Your task to perform on an android device: change the clock display to analog Image 0: 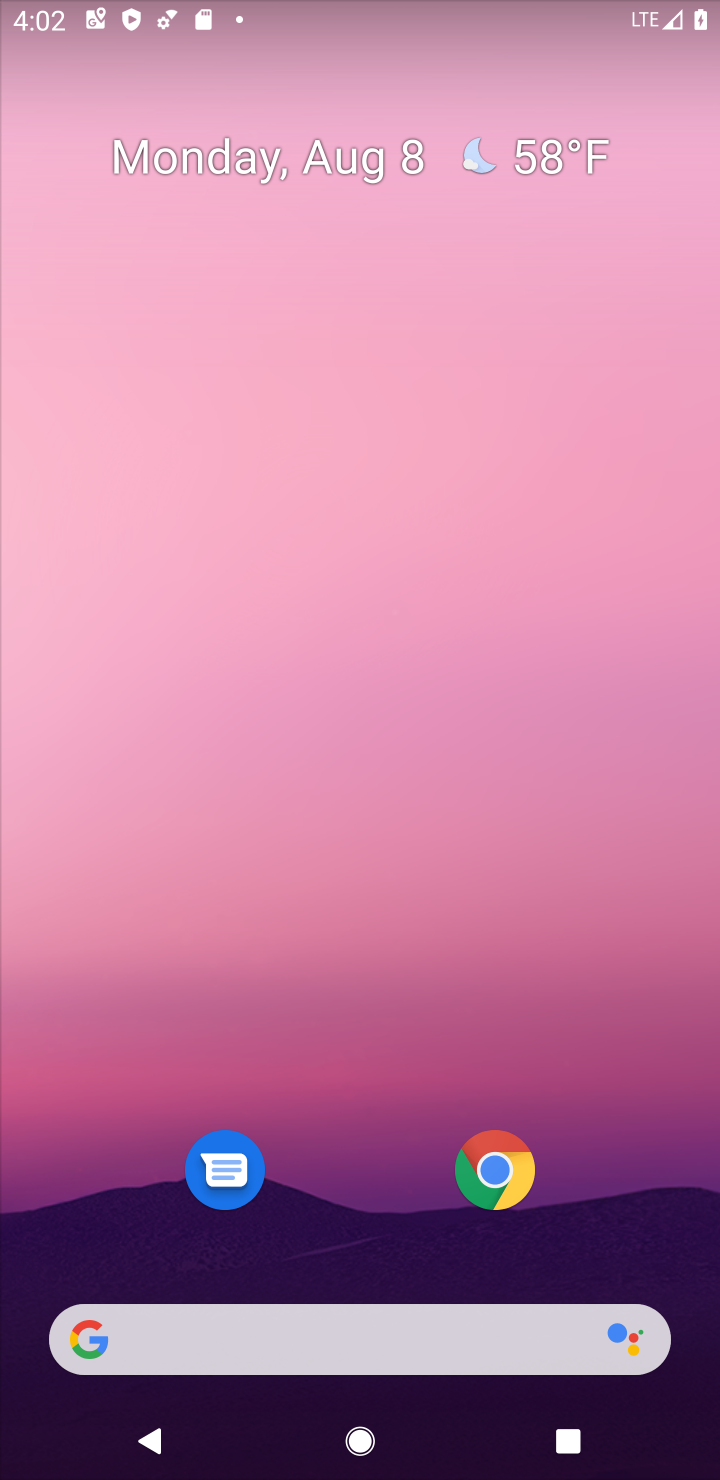
Step 0: drag from (390, 862) to (361, 441)
Your task to perform on an android device: change the clock display to analog Image 1: 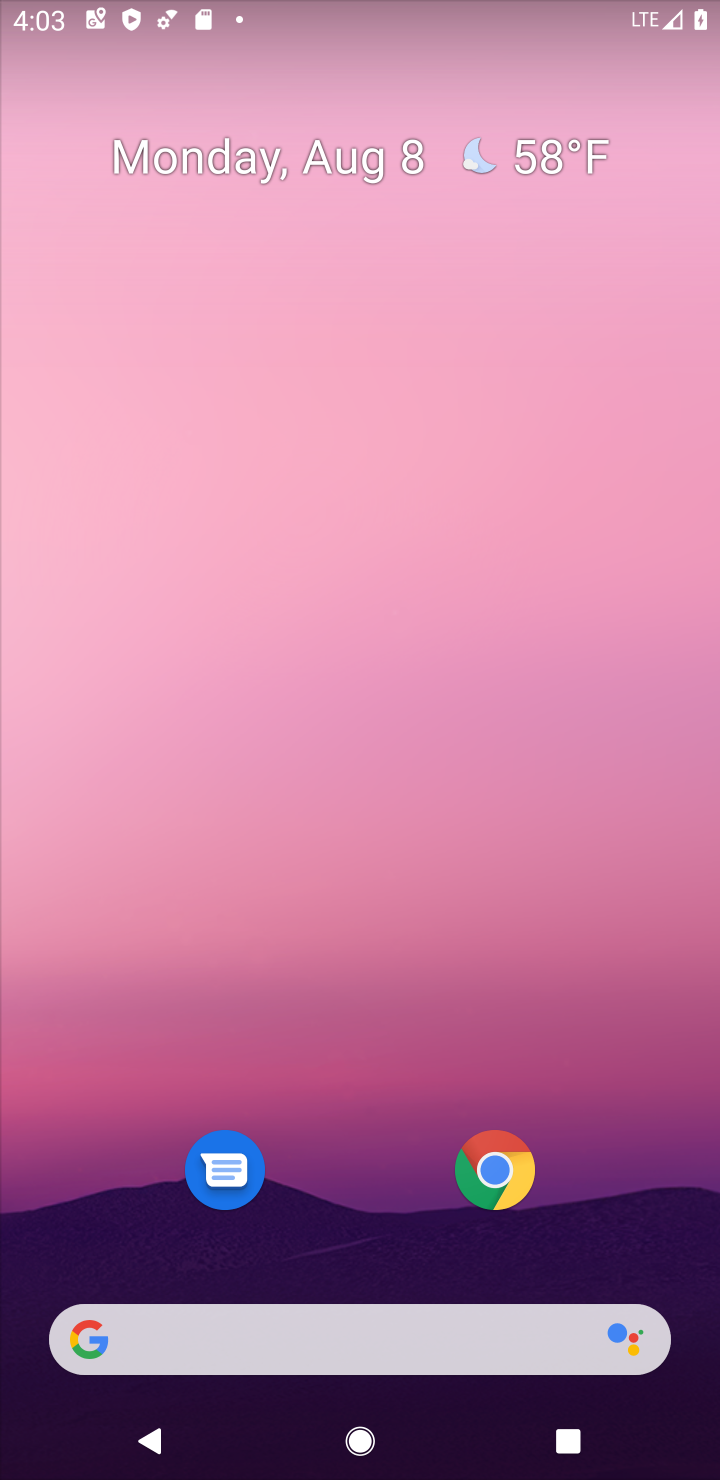
Step 1: drag from (351, 780) to (351, 279)
Your task to perform on an android device: change the clock display to analog Image 2: 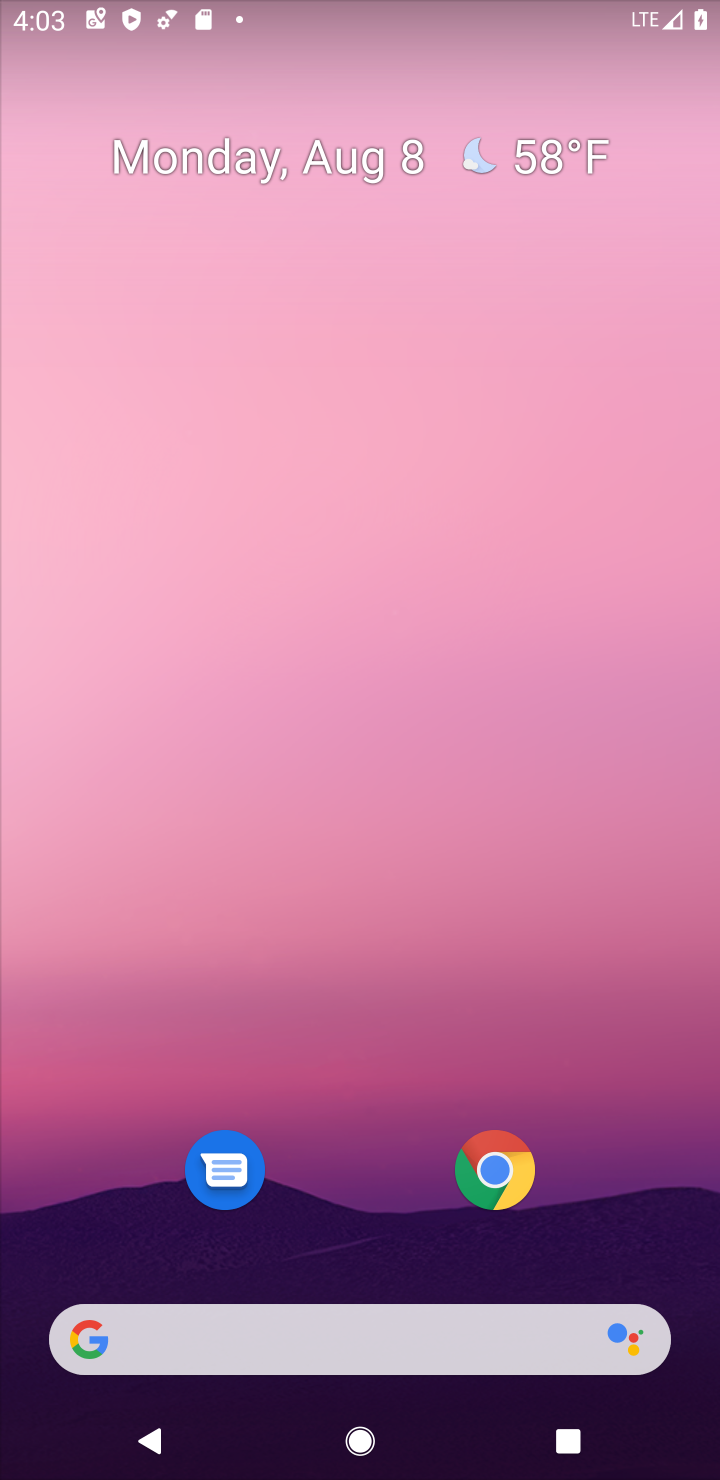
Step 2: drag from (368, 865) to (374, 283)
Your task to perform on an android device: change the clock display to analog Image 3: 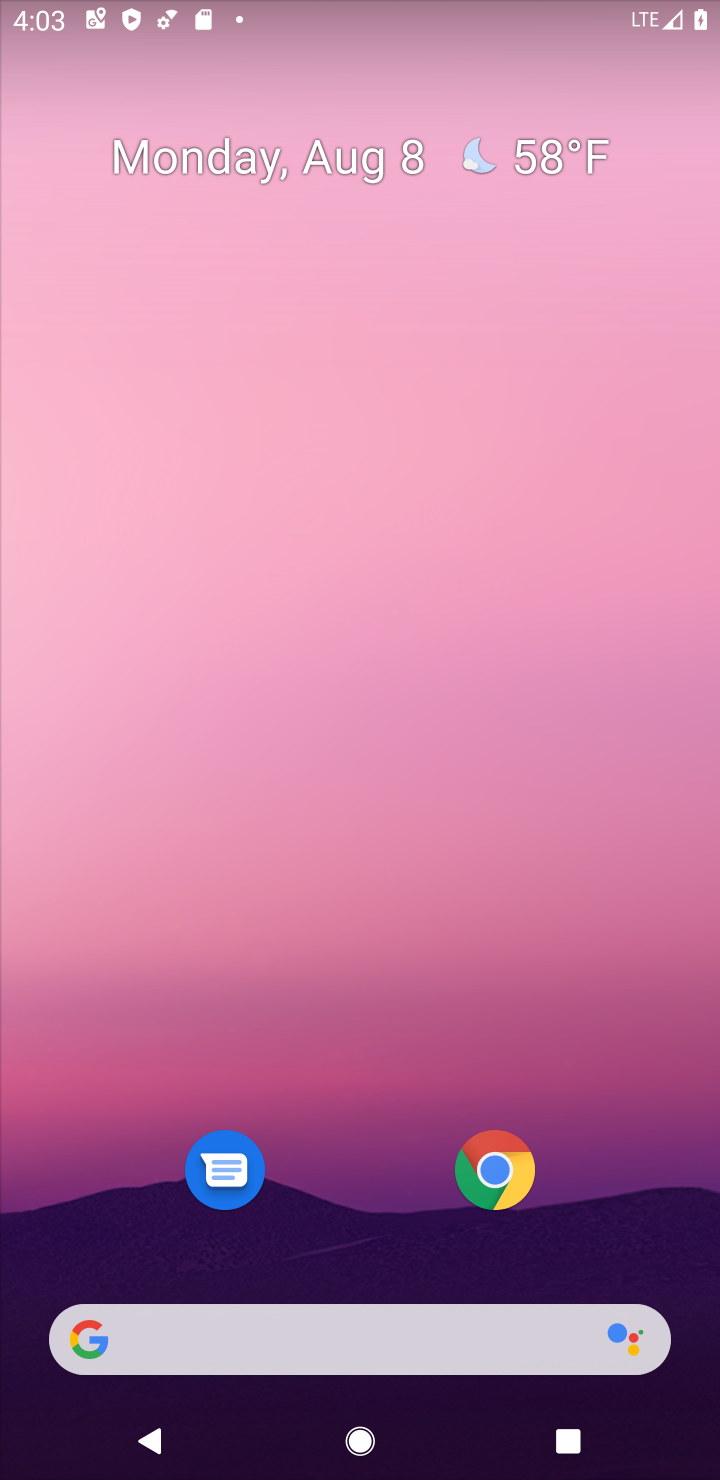
Step 3: drag from (340, 1071) to (340, 303)
Your task to perform on an android device: change the clock display to analog Image 4: 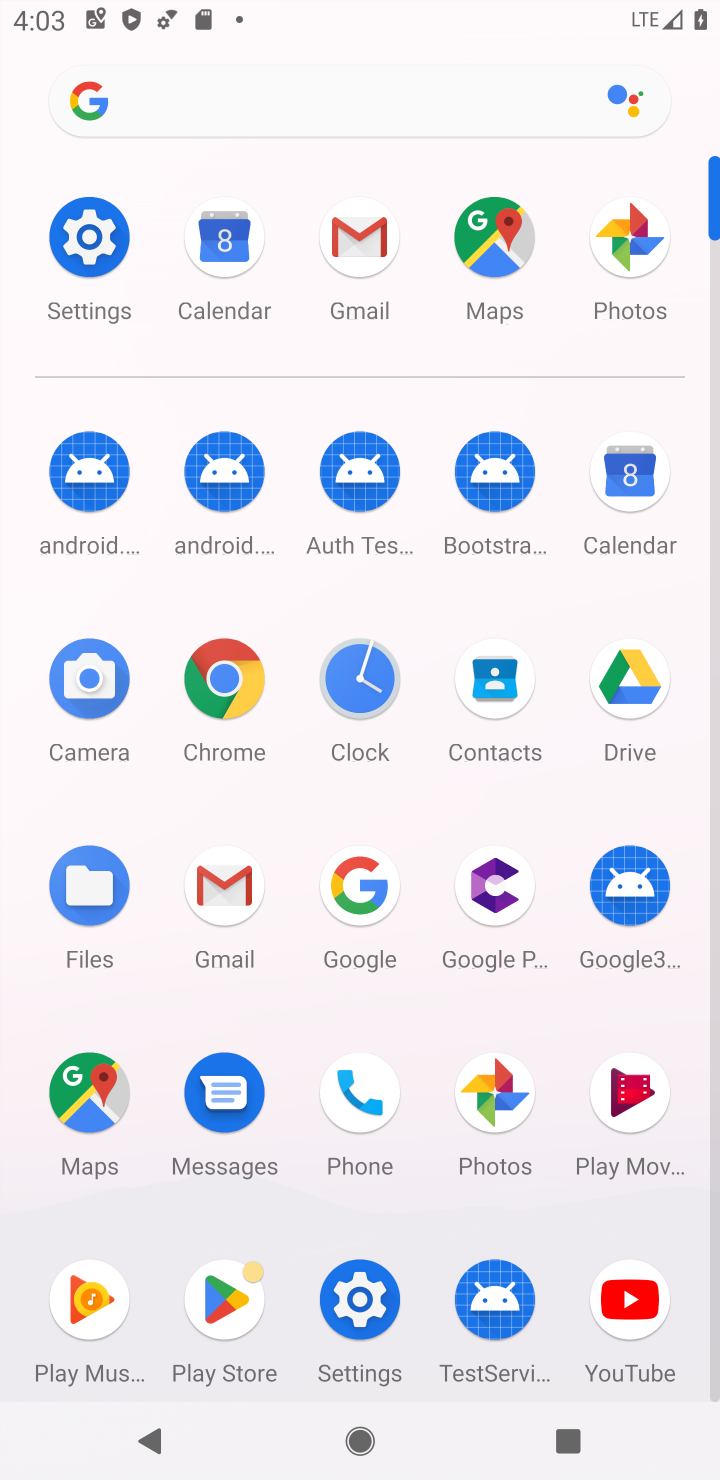
Step 4: click (351, 657)
Your task to perform on an android device: change the clock display to analog Image 5: 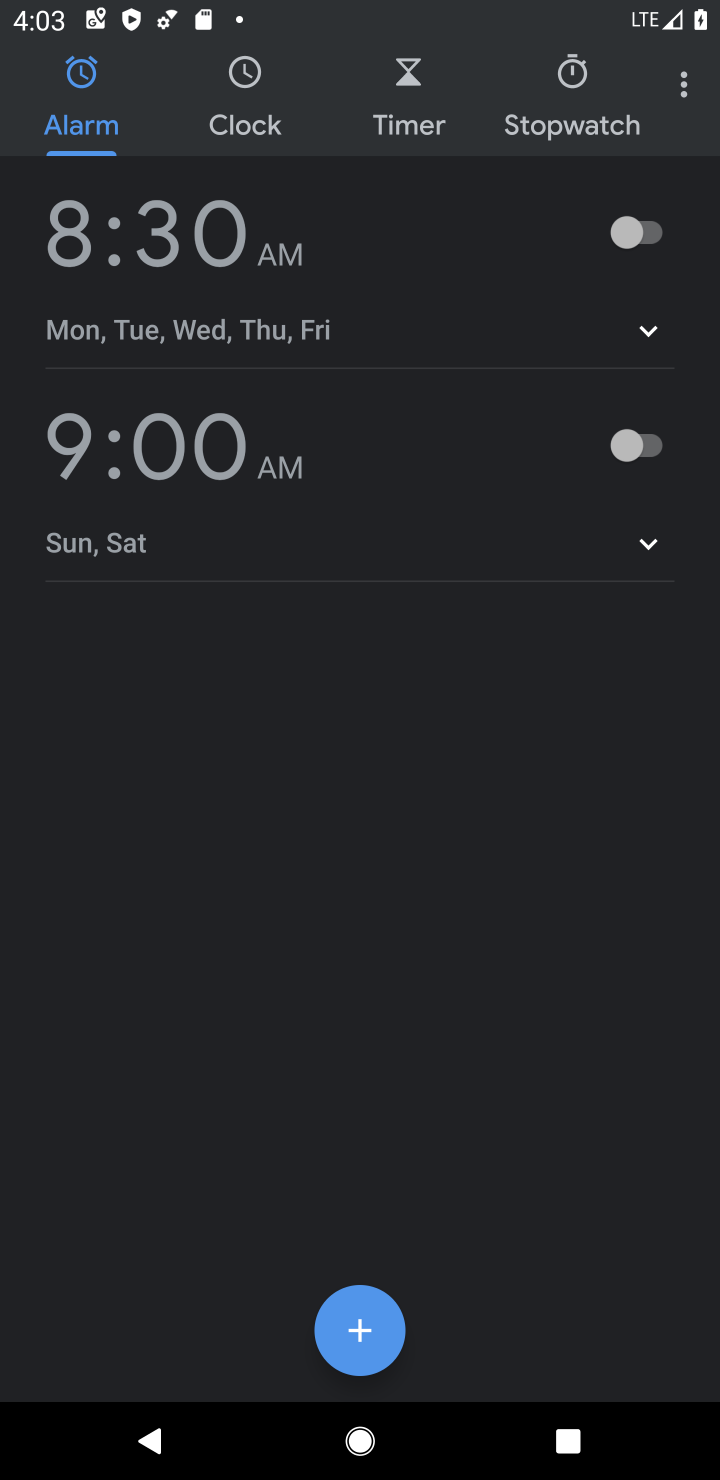
Step 5: click (679, 87)
Your task to perform on an android device: change the clock display to analog Image 6: 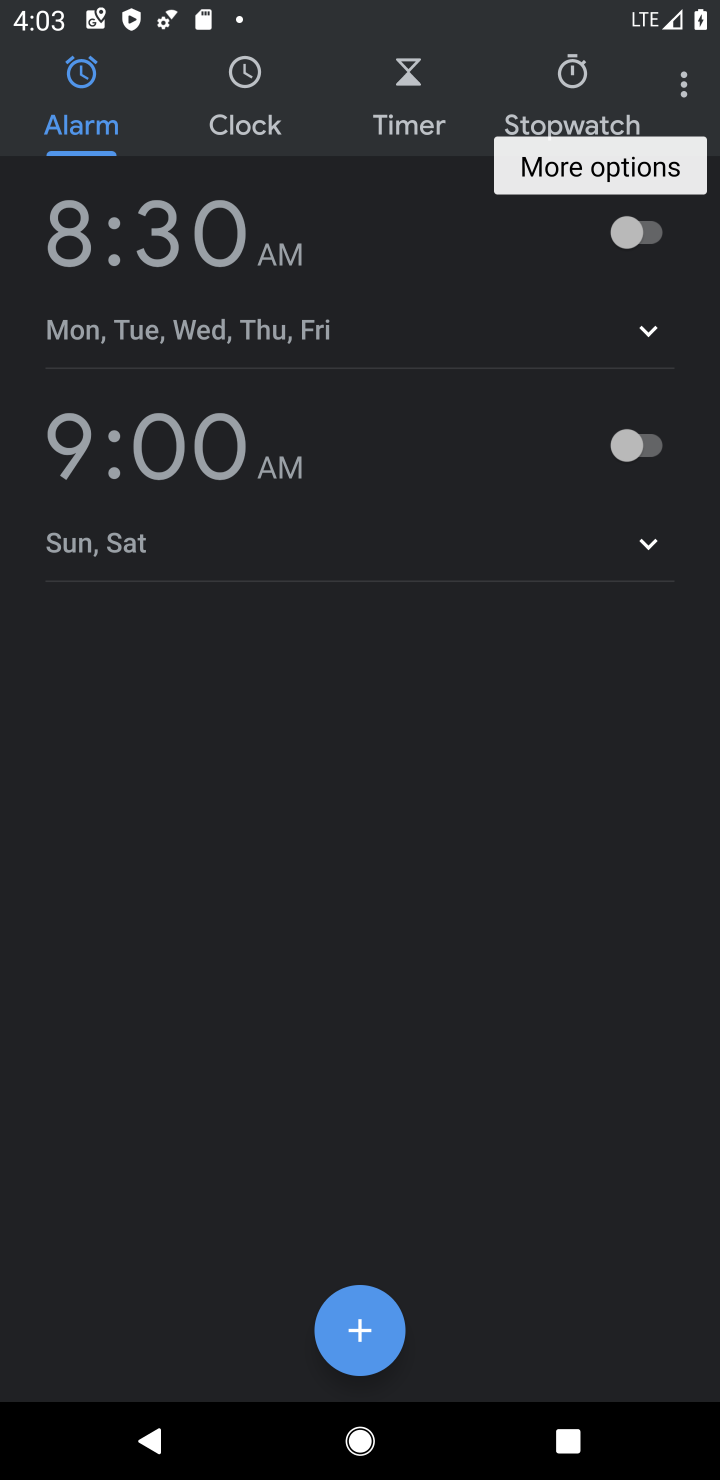
Step 6: click (685, 90)
Your task to perform on an android device: change the clock display to analog Image 7: 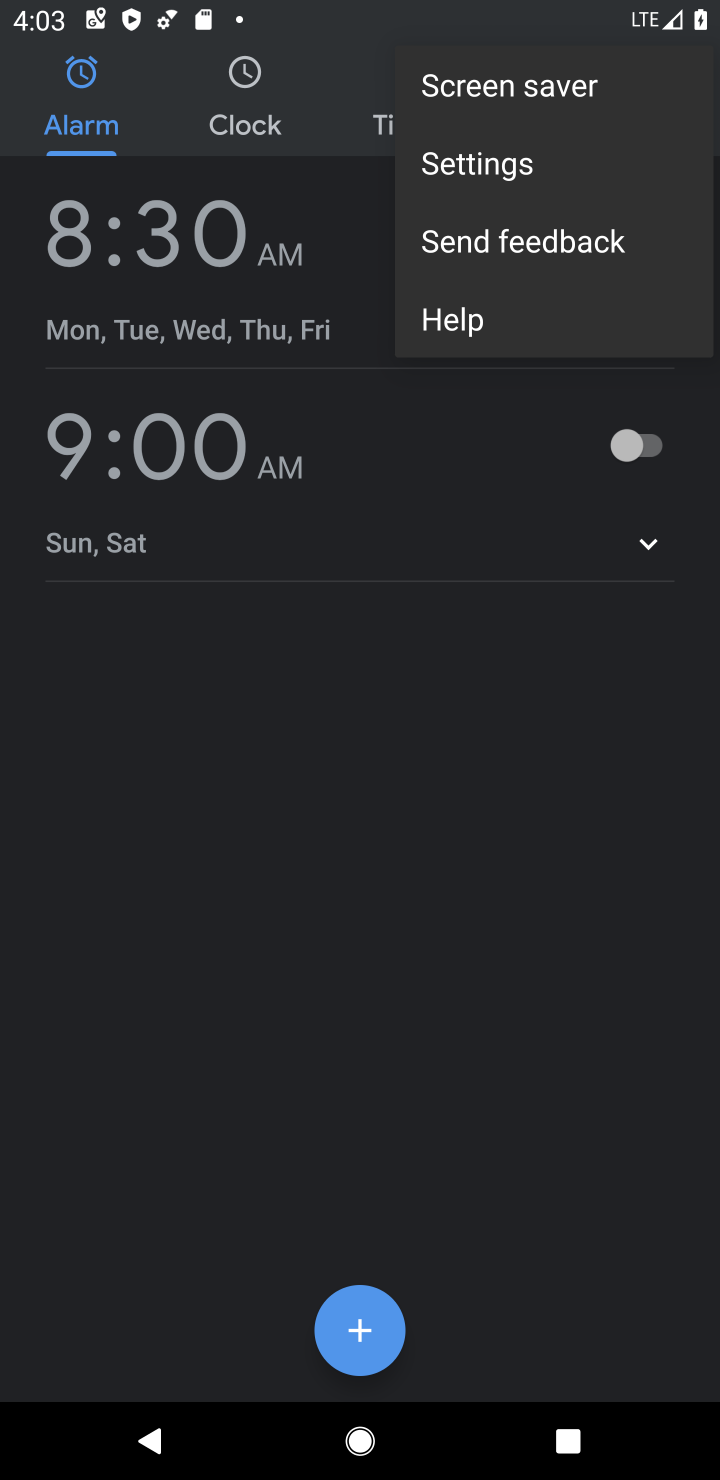
Step 7: click (563, 160)
Your task to perform on an android device: change the clock display to analog Image 8: 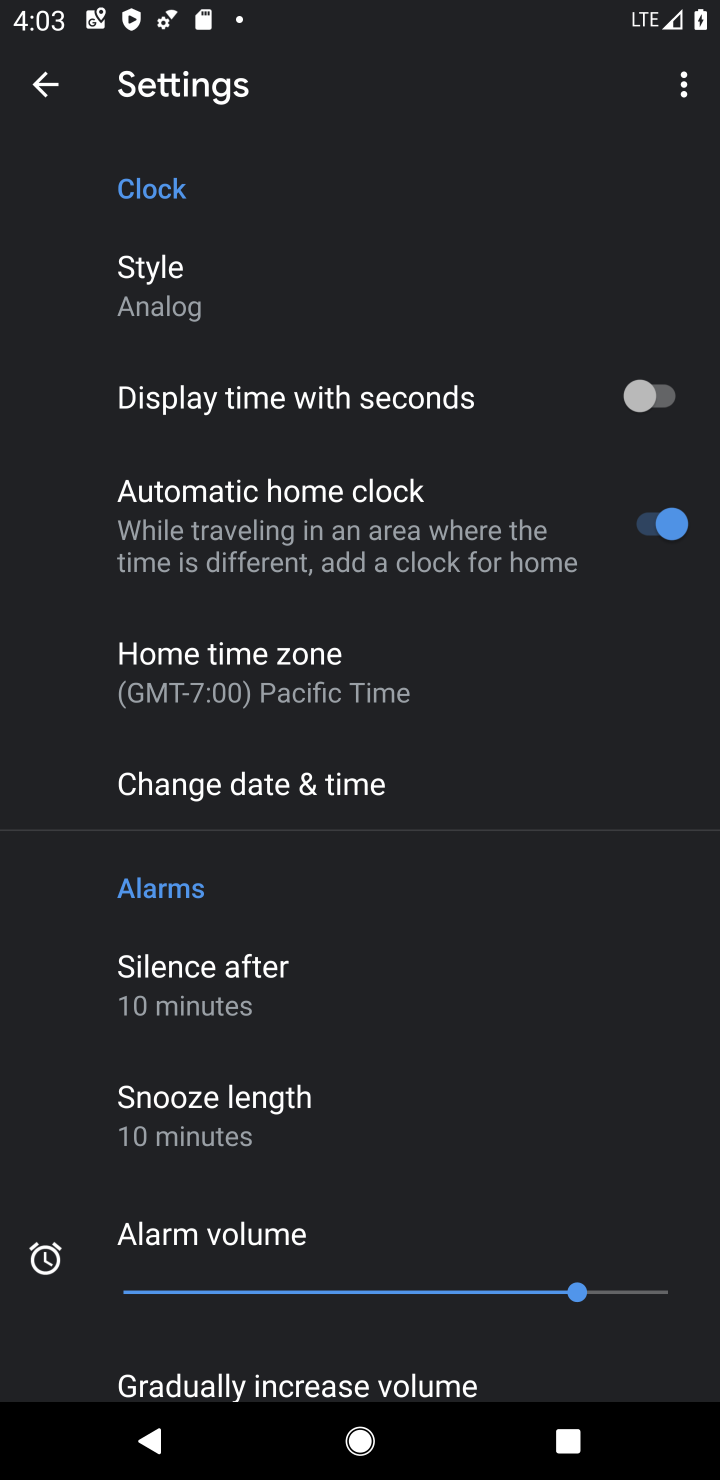
Step 8: task complete